Your task to perform on an android device: stop showing notifications on the lock screen Image 0: 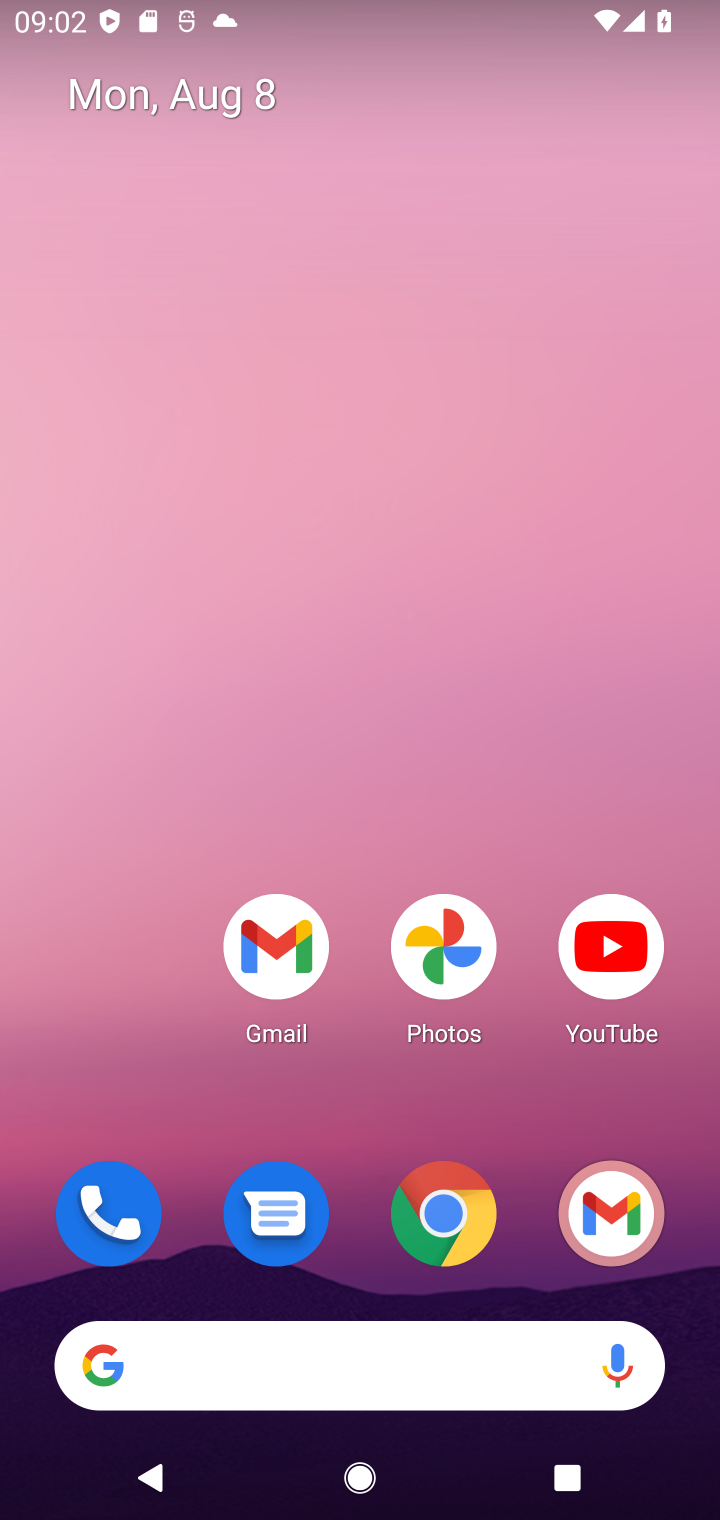
Step 0: drag from (375, 707) to (453, 265)
Your task to perform on an android device: stop showing notifications on the lock screen Image 1: 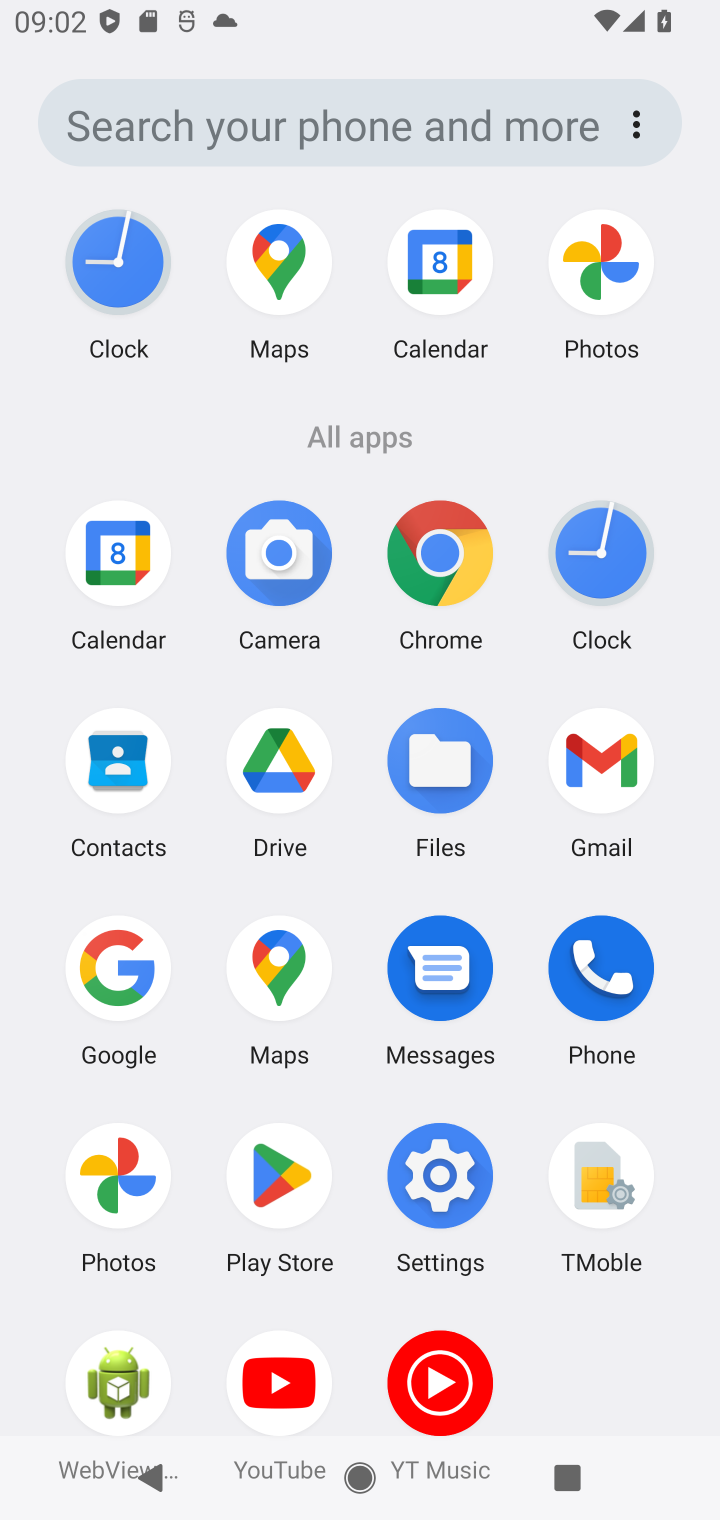
Step 1: click (477, 1183)
Your task to perform on an android device: stop showing notifications on the lock screen Image 2: 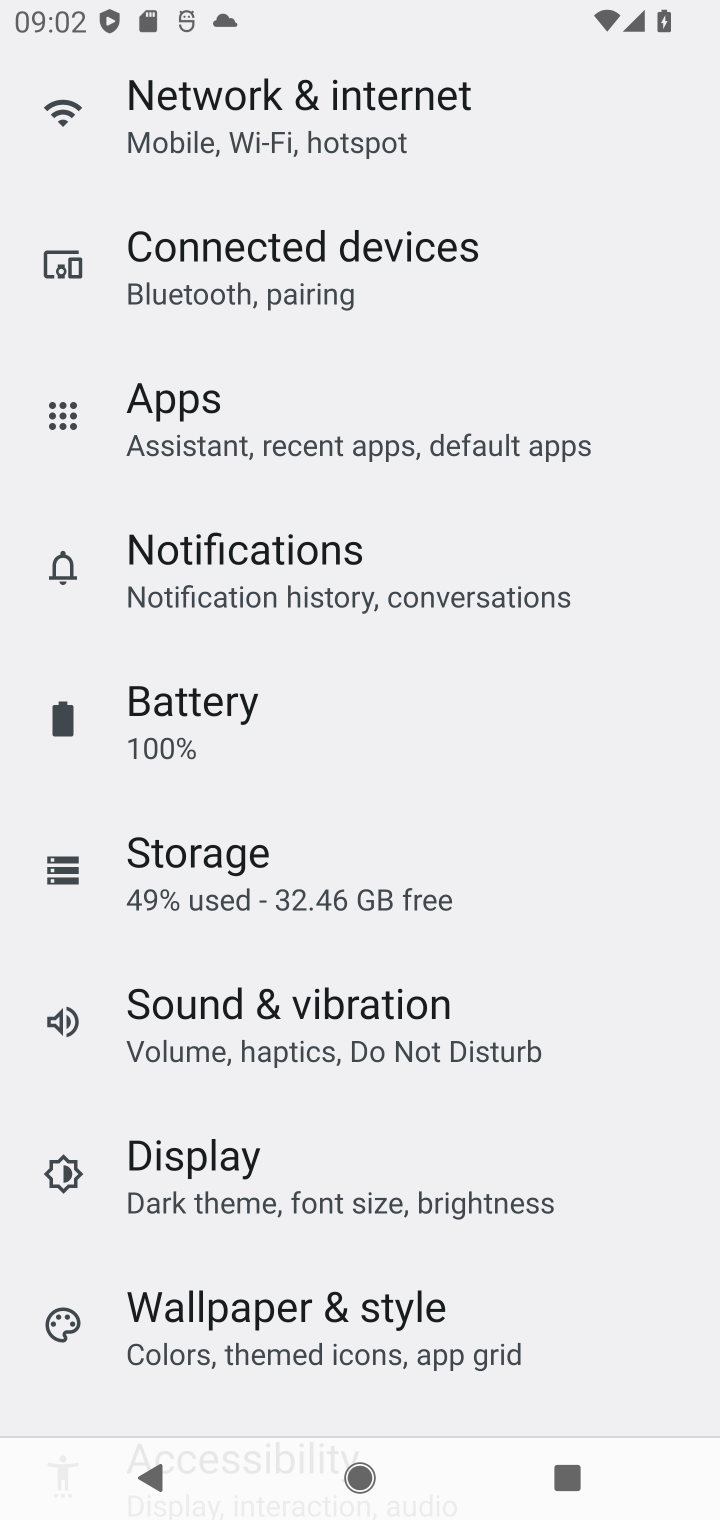
Step 2: click (351, 594)
Your task to perform on an android device: stop showing notifications on the lock screen Image 3: 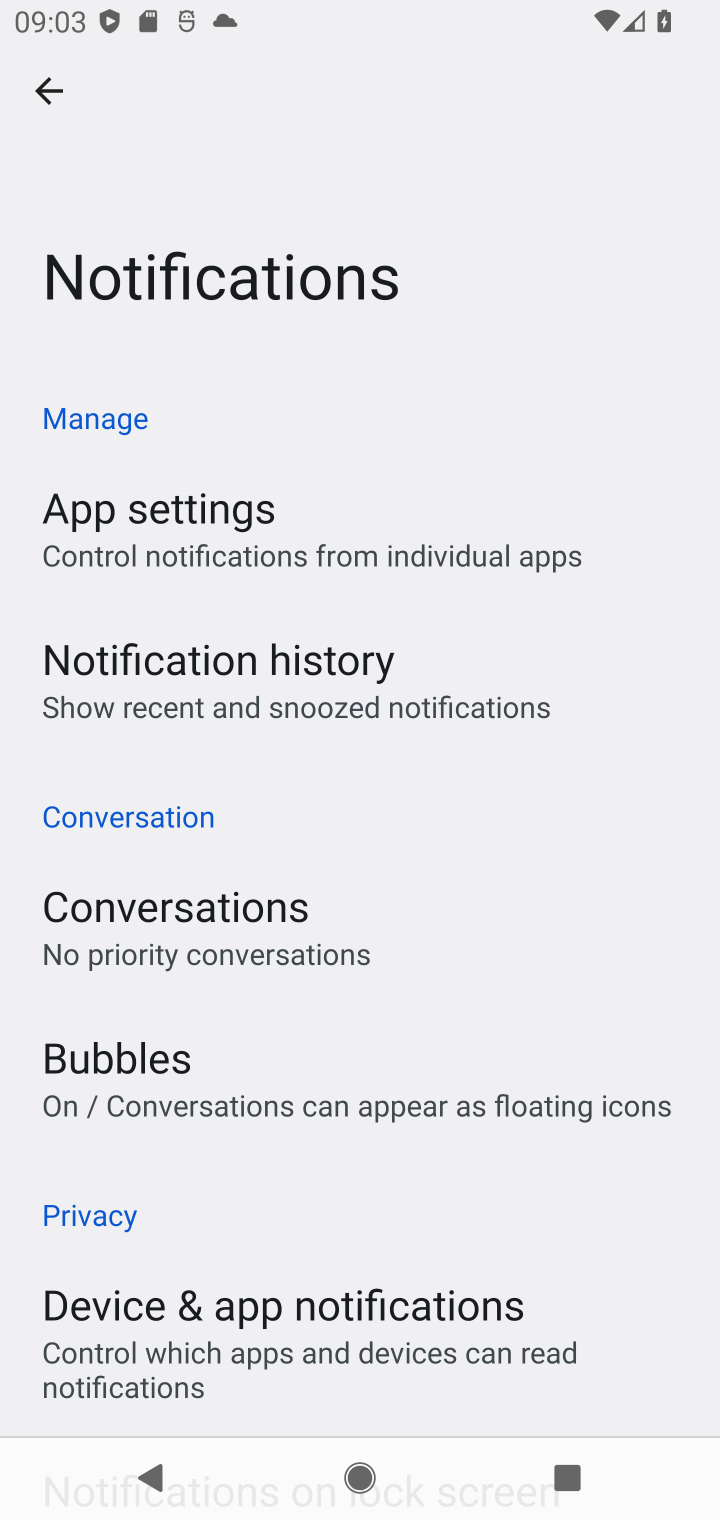
Step 3: drag from (403, 1185) to (464, 322)
Your task to perform on an android device: stop showing notifications on the lock screen Image 4: 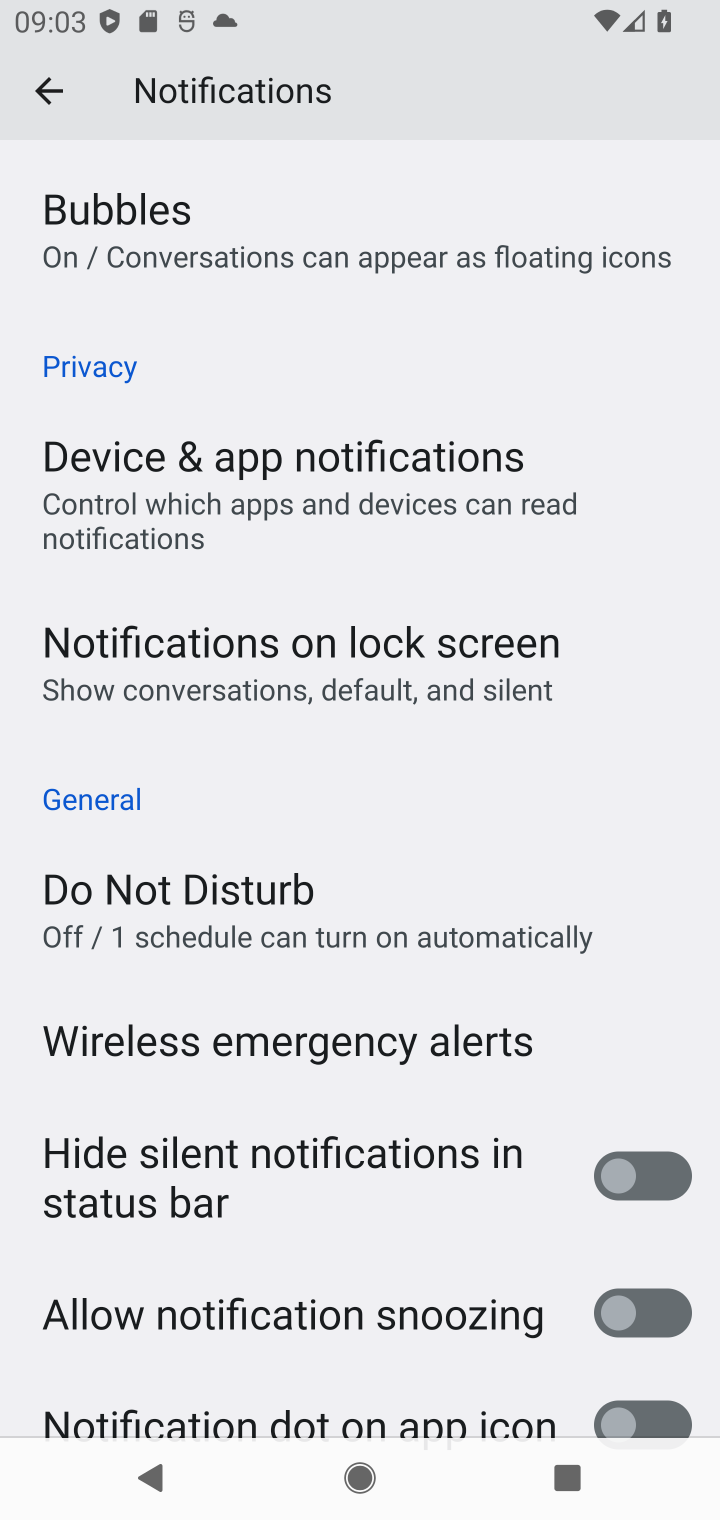
Step 4: click (355, 687)
Your task to perform on an android device: stop showing notifications on the lock screen Image 5: 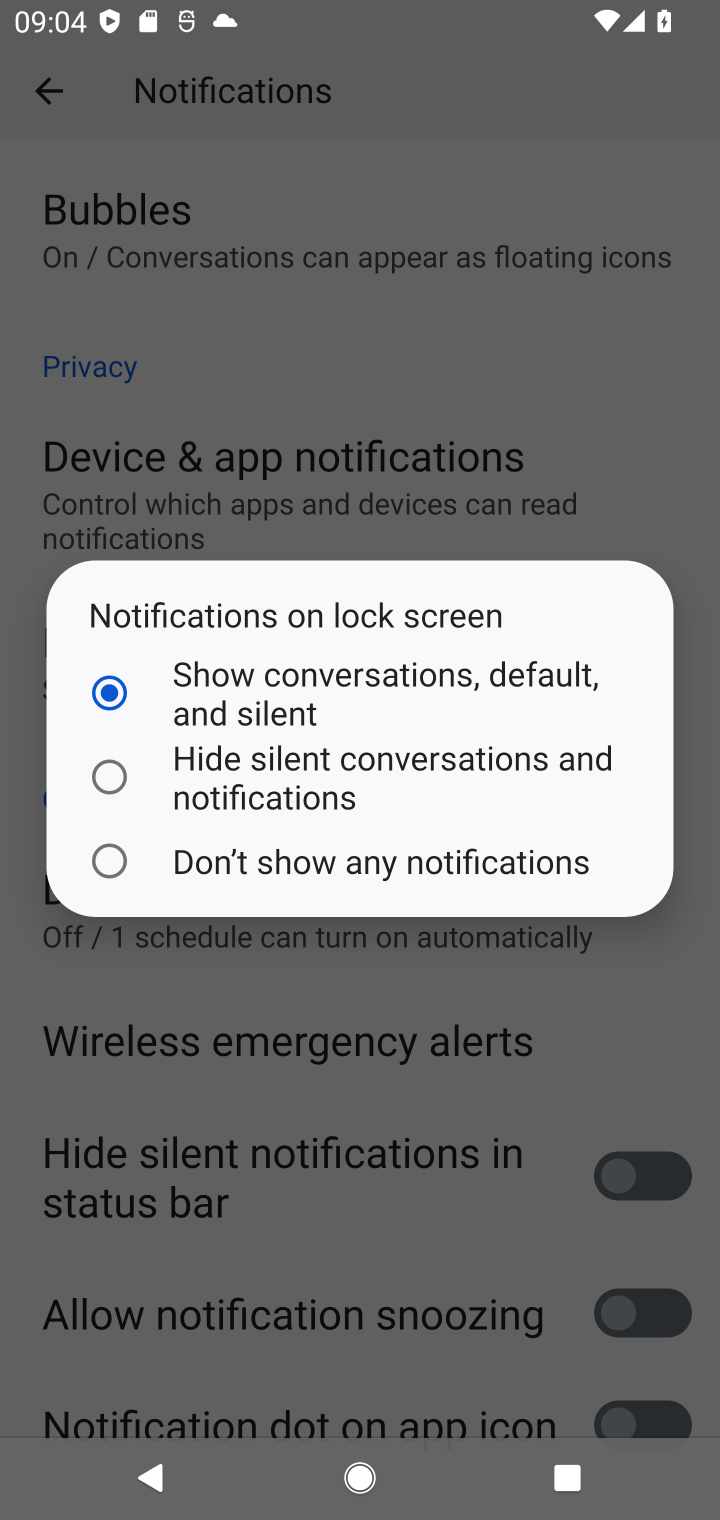
Step 5: click (422, 857)
Your task to perform on an android device: stop showing notifications on the lock screen Image 6: 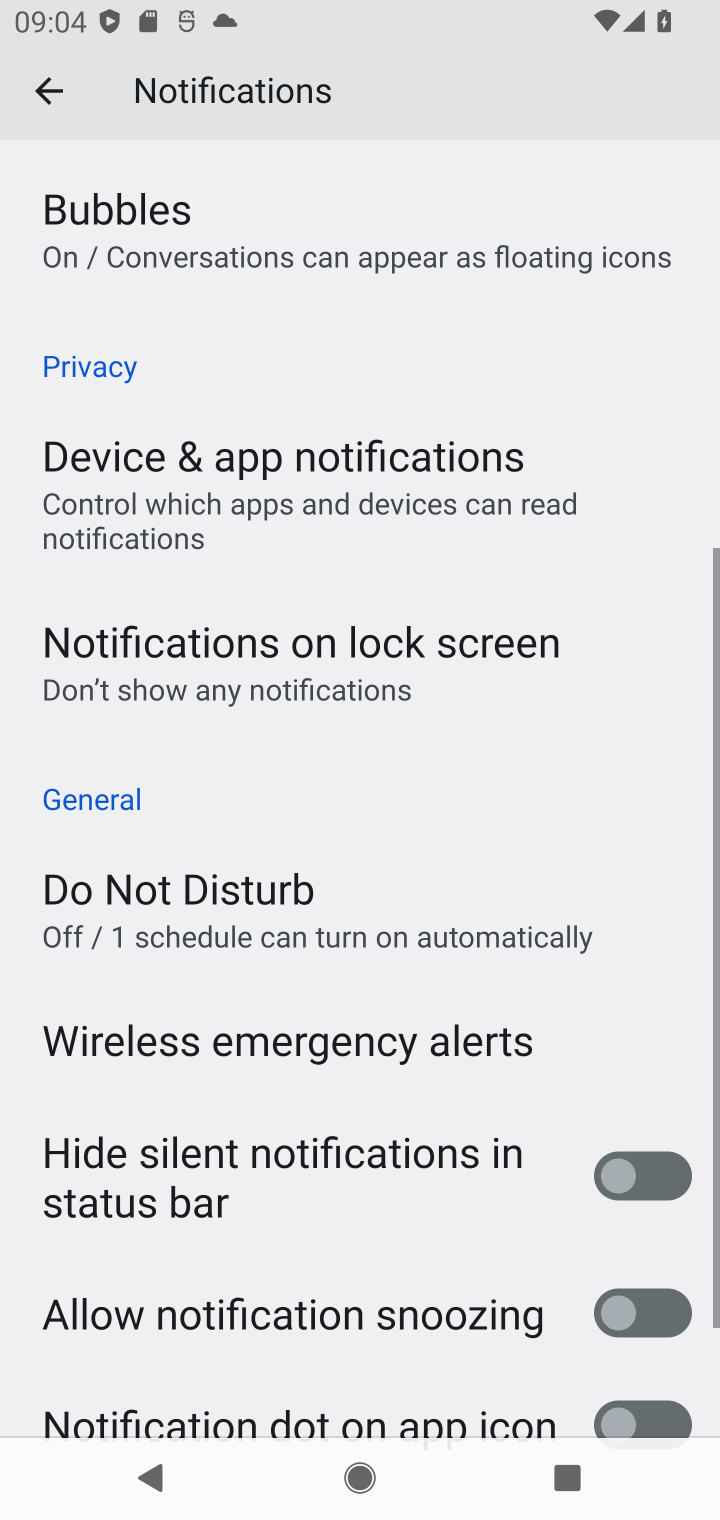
Step 6: task complete